Your task to perform on an android device: Open internet settings Image 0: 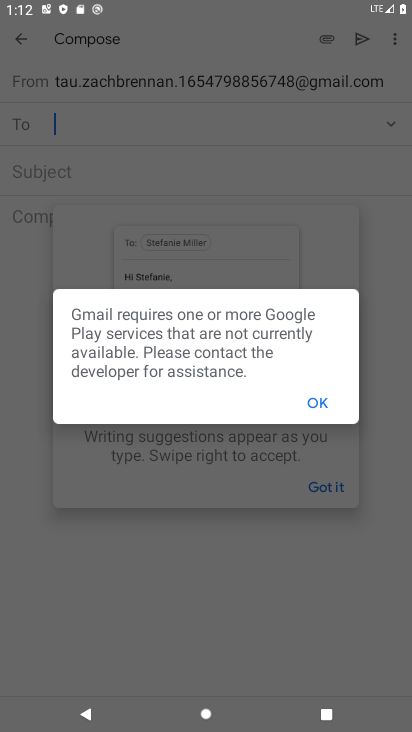
Step 0: task complete